Your task to perform on an android device: Open Maps and search for coffee Image 0: 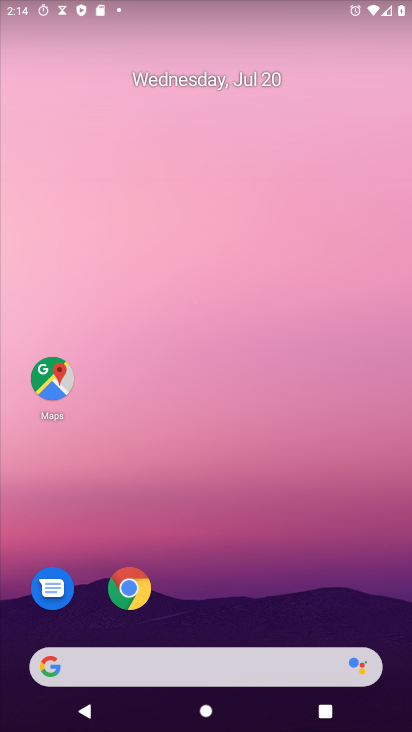
Step 0: drag from (302, 683) to (345, 16)
Your task to perform on an android device: Open Maps and search for coffee Image 1: 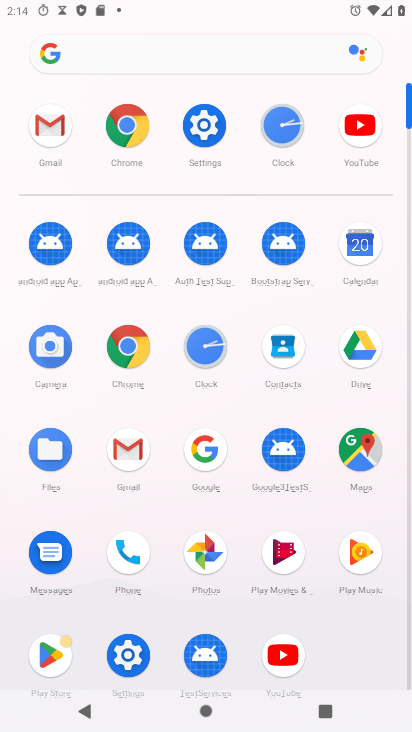
Step 1: click (370, 449)
Your task to perform on an android device: Open Maps and search for coffee Image 2: 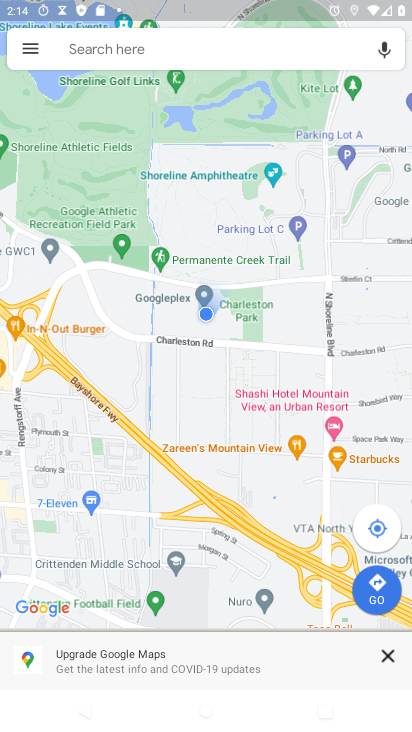
Step 2: click (220, 48)
Your task to perform on an android device: Open Maps and search for coffee Image 3: 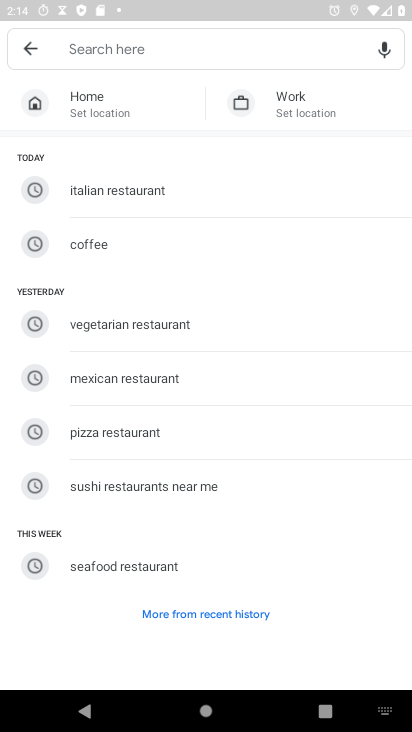
Step 3: click (94, 246)
Your task to perform on an android device: Open Maps and search for coffee Image 4: 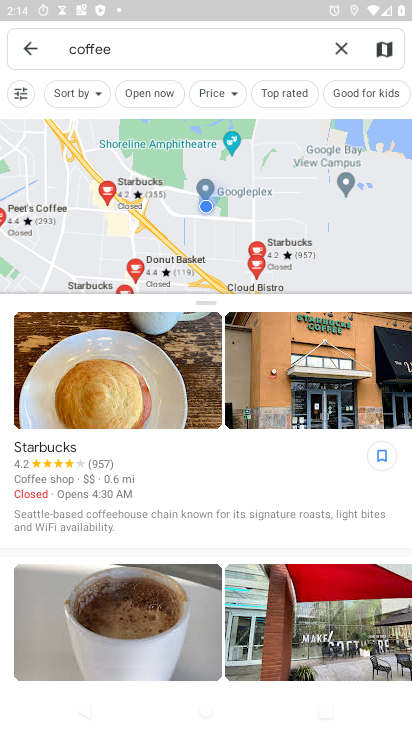
Step 4: task complete